Your task to perform on an android device: Add dell alienware to the cart on walmart.com Image 0: 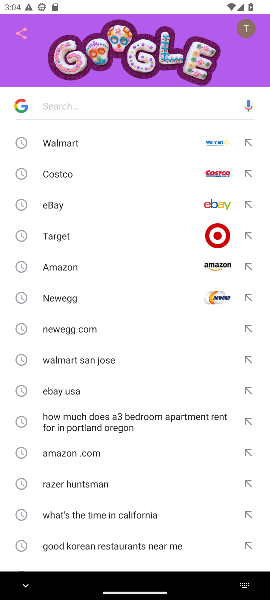
Step 0: press home button
Your task to perform on an android device: Add dell alienware to the cart on walmart.com Image 1: 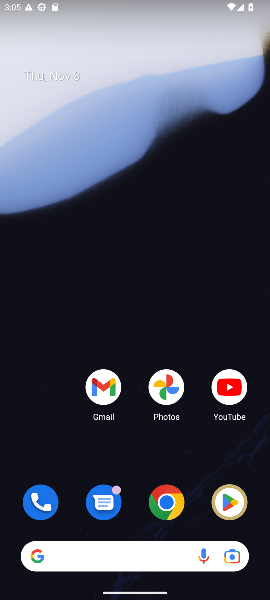
Step 1: drag from (135, 509) to (169, 189)
Your task to perform on an android device: Add dell alienware to the cart on walmart.com Image 2: 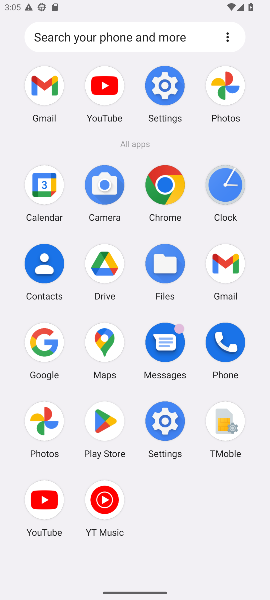
Step 2: click (38, 340)
Your task to perform on an android device: Add dell alienware to the cart on walmart.com Image 3: 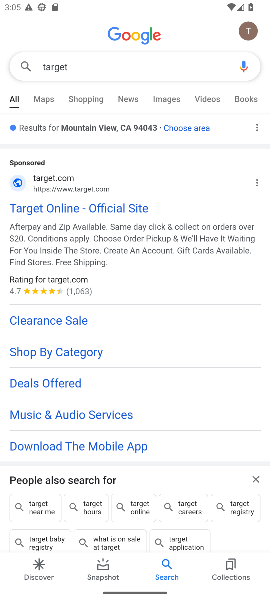
Step 3: click (207, 72)
Your task to perform on an android device: Add dell alienware to the cart on walmart.com Image 4: 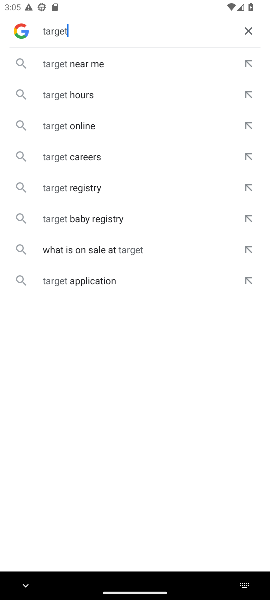
Step 4: click (245, 27)
Your task to perform on an android device: Add dell alienware to the cart on walmart.com Image 5: 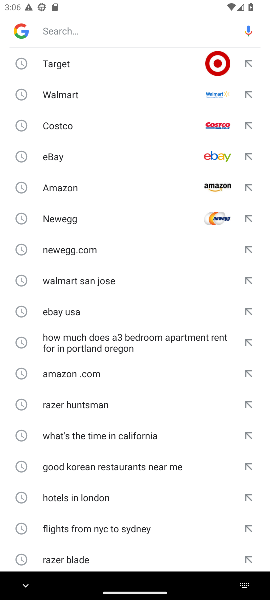
Step 5: type "walmart.com"
Your task to perform on an android device: Add dell alienware to the cart on walmart.com Image 6: 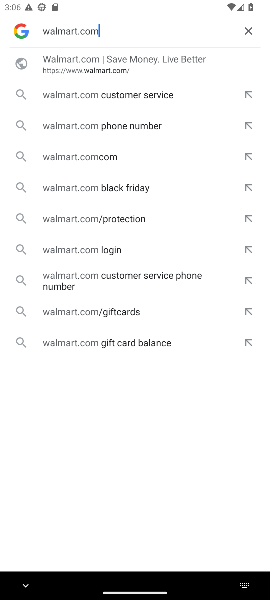
Step 6: click (120, 64)
Your task to perform on an android device: Add dell alienware to the cart on walmart.com Image 7: 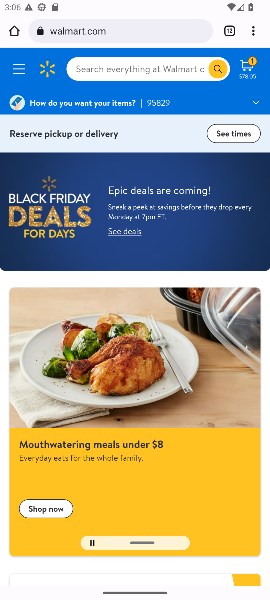
Step 7: click (130, 69)
Your task to perform on an android device: Add dell alienware to the cart on walmart.com Image 8: 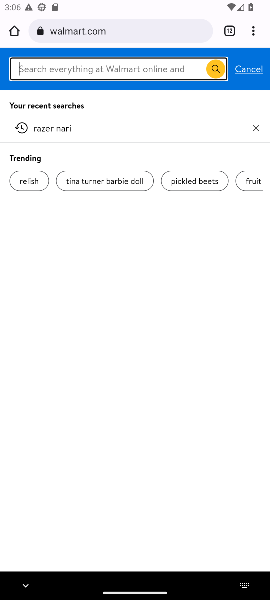
Step 8: type "dell alienware"
Your task to perform on an android device: Add dell alienware to the cart on walmart.com Image 9: 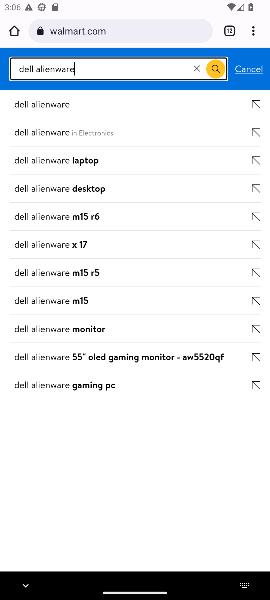
Step 9: click (42, 105)
Your task to perform on an android device: Add dell alienware to the cart on walmart.com Image 10: 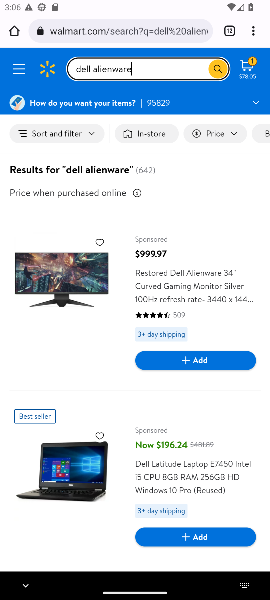
Step 10: click (164, 362)
Your task to perform on an android device: Add dell alienware to the cart on walmart.com Image 11: 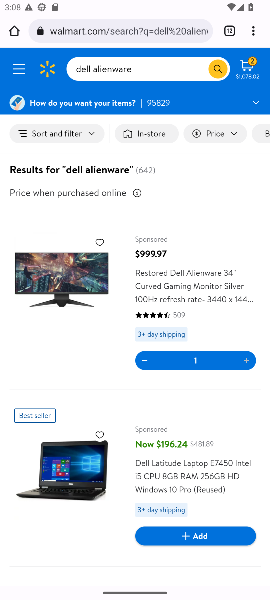
Step 11: task complete